Your task to perform on an android device: Open Chrome and go to the settings page Image 0: 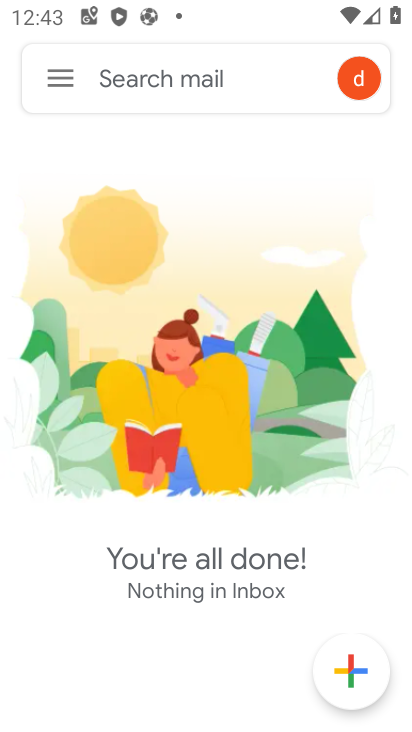
Step 0: press home button
Your task to perform on an android device: Open Chrome and go to the settings page Image 1: 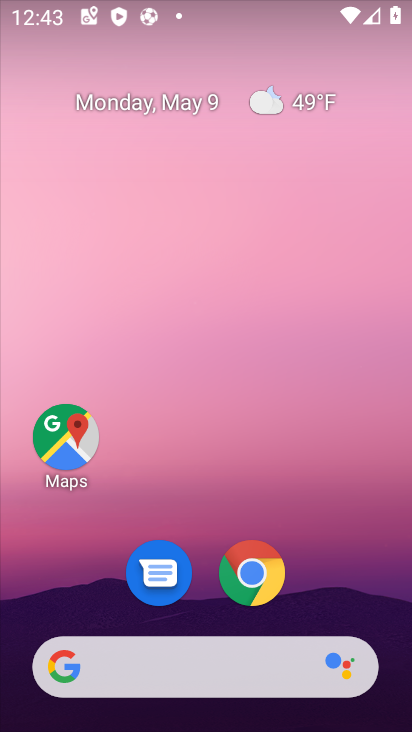
Step 1: click (251, 564)
Your task to perform on an android device: Open Chrome and go to the settings page Image 2: 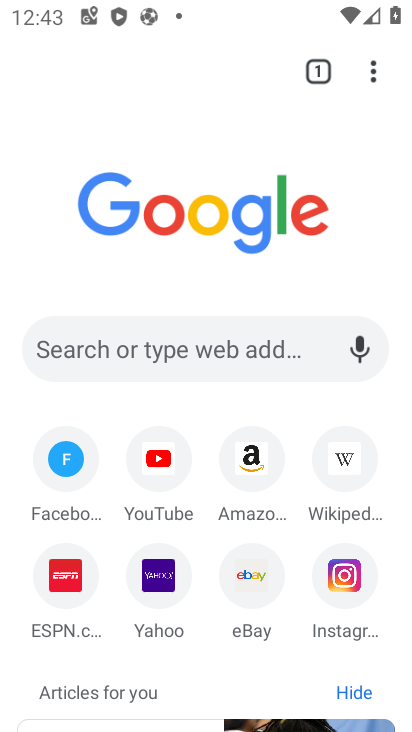
Step 2: click (380, 73)
Your task to perform on an android device: Open Chrome and go to the settings page Image 3: 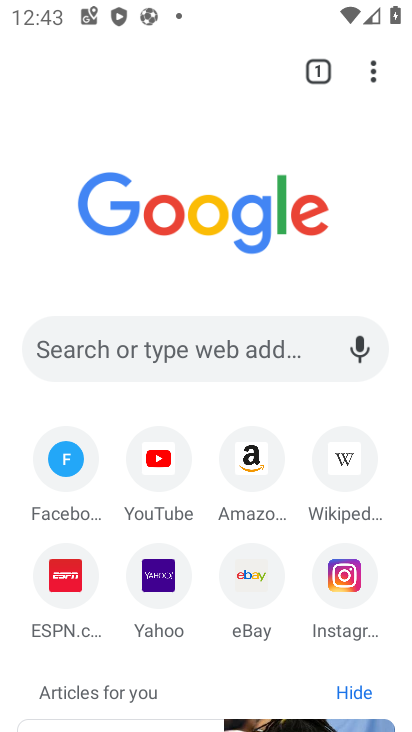
Step 3: drag from (374, 75) to (149, 596)
Your task to perform on an android device: Open Chrome and go to the settings page Image 4: 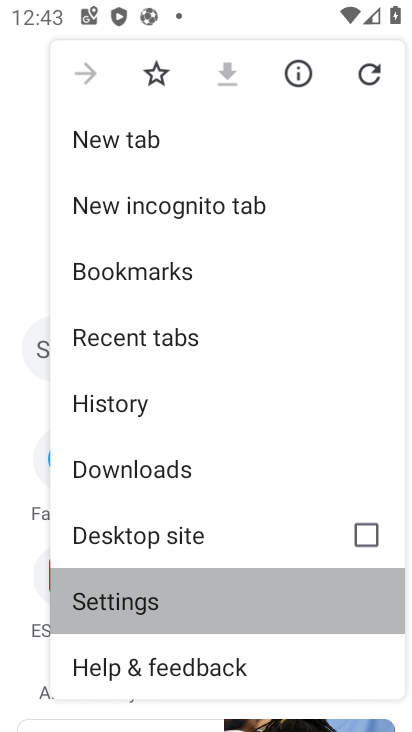
Step 4: click (149, 596)
Your task to perform on an android device: Open Chrome and go to the settings page Image 5: 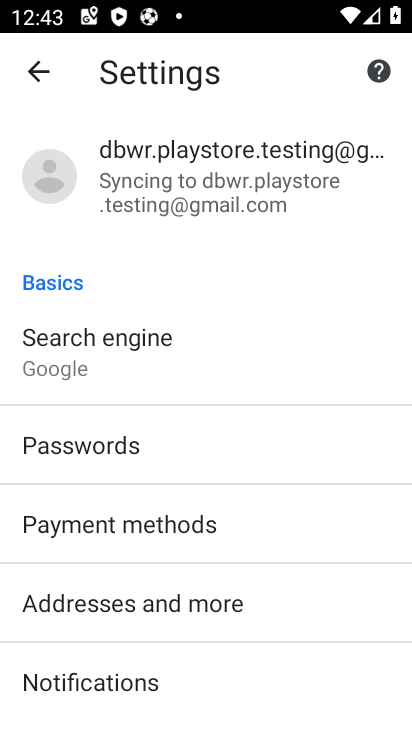
Step 5: task complete